Your task to perform on an android device: Clear the shopping cart on newegg.com. Search for razer blackwidow on newegg.com, select the first entry, add it to the cart, then select checkout. Image 0: 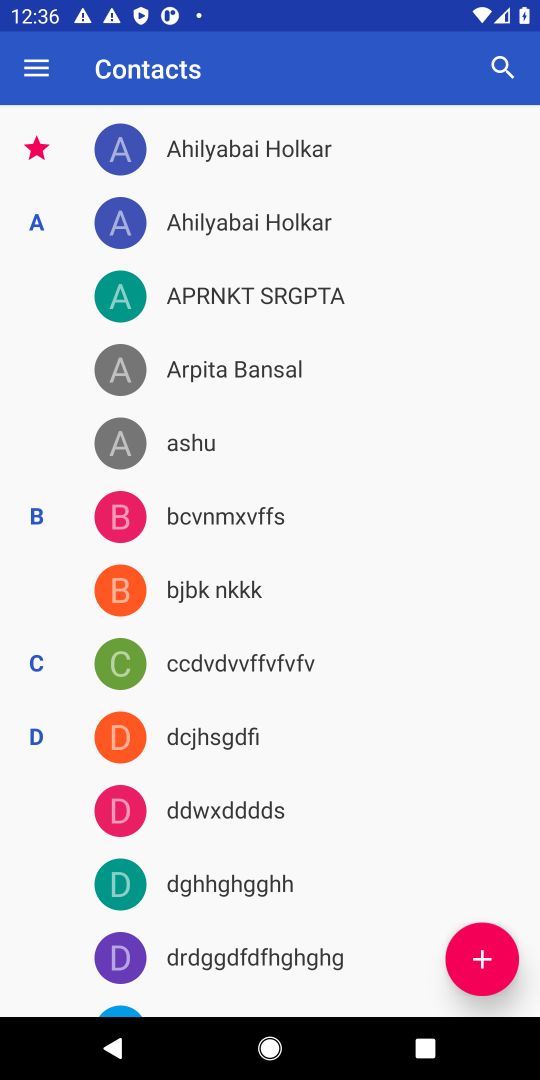
Step 0: press home button
Your task to perform on an android device: Clear the shopping cart on newegg.com. Search for razer blackwidow on newegg.com, select the first entry, add it to the cart, then select checkout. Image 1: 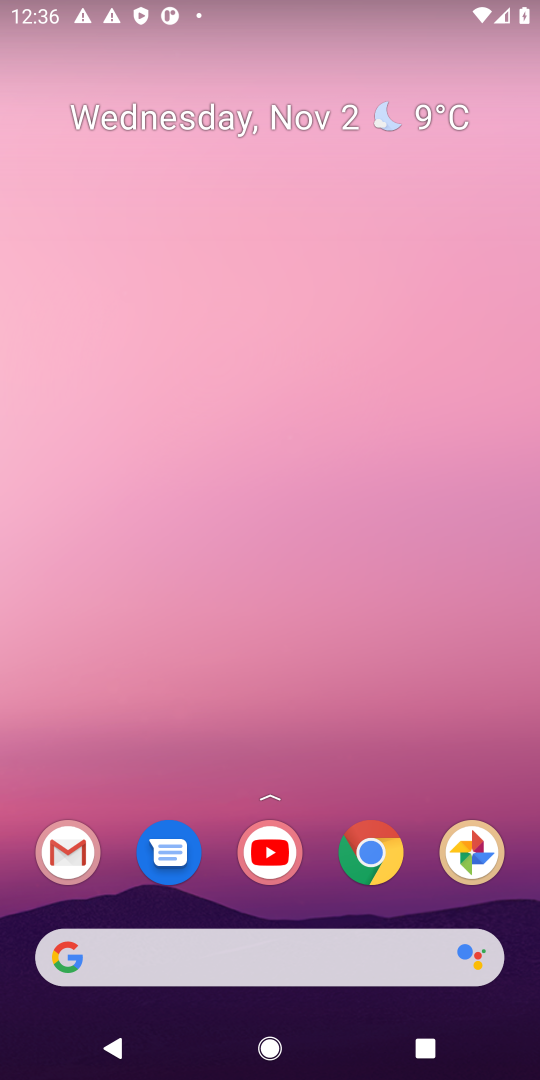
Step 1: click (351, 844)
Your task to perform on an android device: Clear the shopping cart on newegg.com. Search for razer blackwidow on newegg.com, select the first entry, add it to the cart, then select checkout. Image 2: 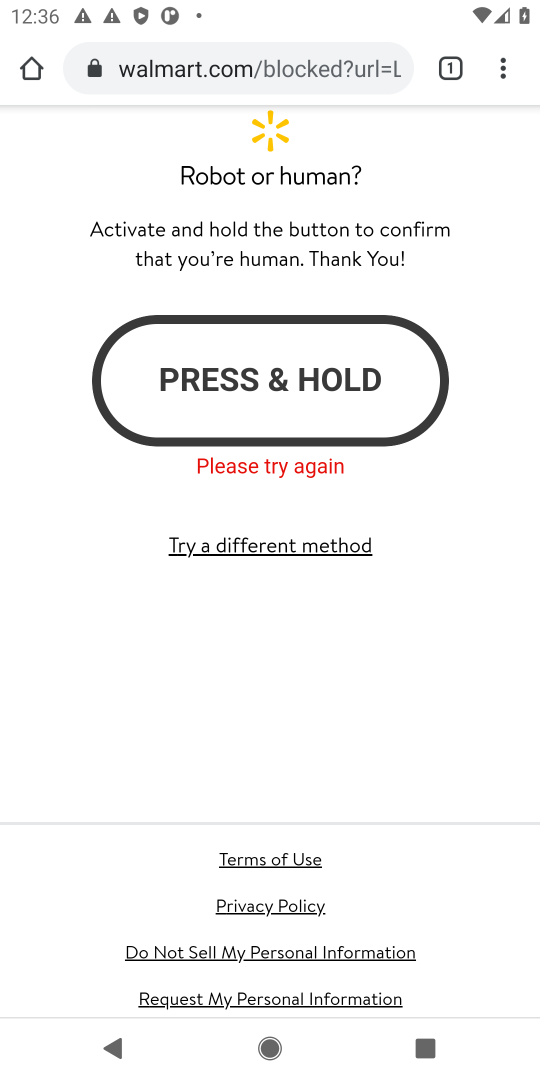
Step 2: click (347, 69)
Your task to perform on an android device: Clear the shopping cart on newegg.com. Search for razer blackwidow on newegg.com, select the first entry, add it to the cart, then select checkout. Image 3: 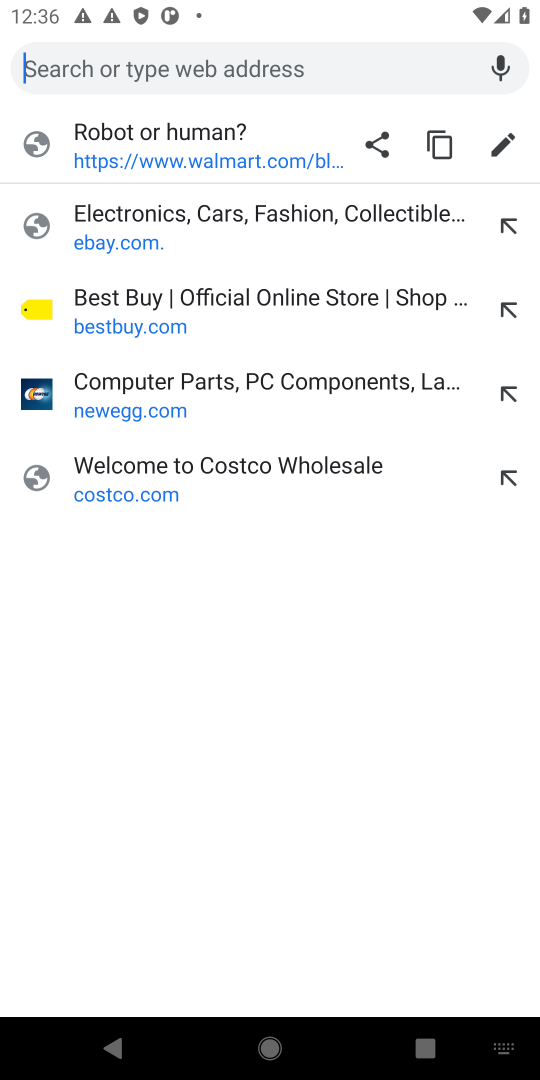
Step 3: type "newegg.com"
Your task to perform on an android device: Clear the shopping cart on newegg.com. Search for razer blackwidow on newegg.com, select the first entry, add it to the cart, then select checkout. Image 4: 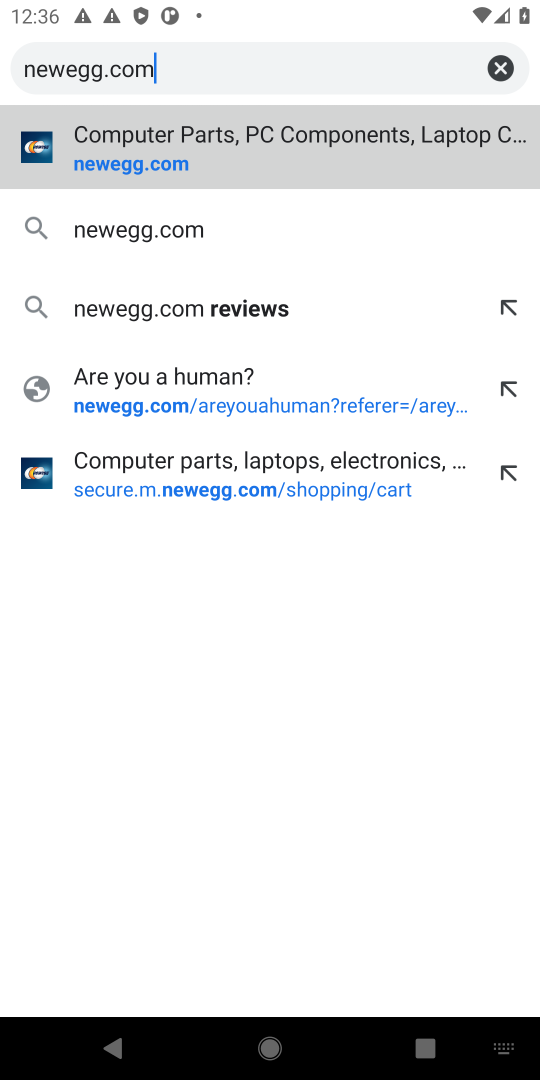
Step 4: click (317, 163)
Your task to perform on an android device: Clear the shopping cart on newegg.com. Search for razer blackwidow on newegg.com, select the first entry, add it to the cart, then select checkout. Image 5: 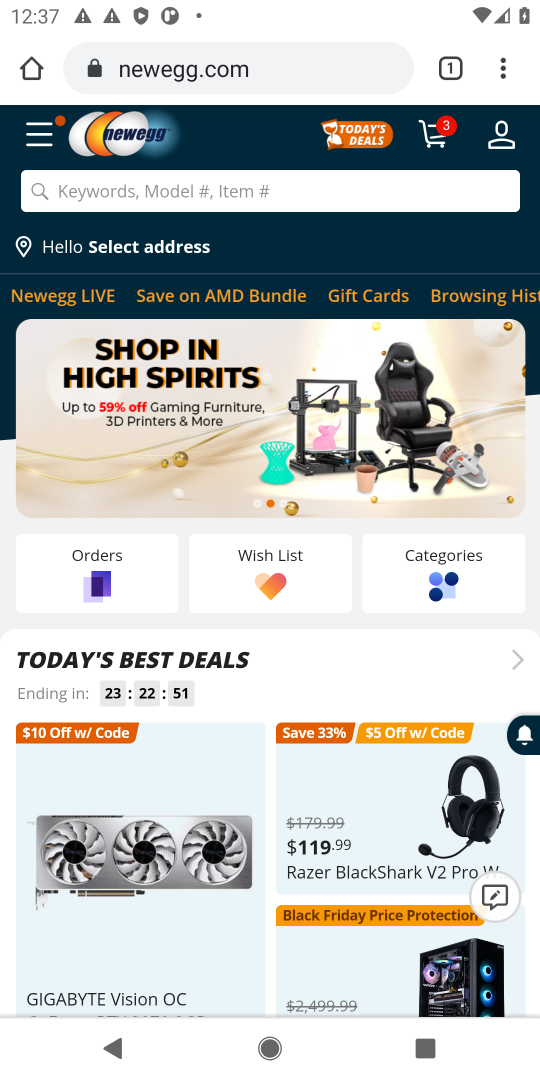
Step 5: click (251, 200)
Your task to perform on an android device: Clear the shopping cart on newegg.com. Search for razer blackwidow on newegg.com, select the first entry, add it to the cart, then select checkout. Image 6: 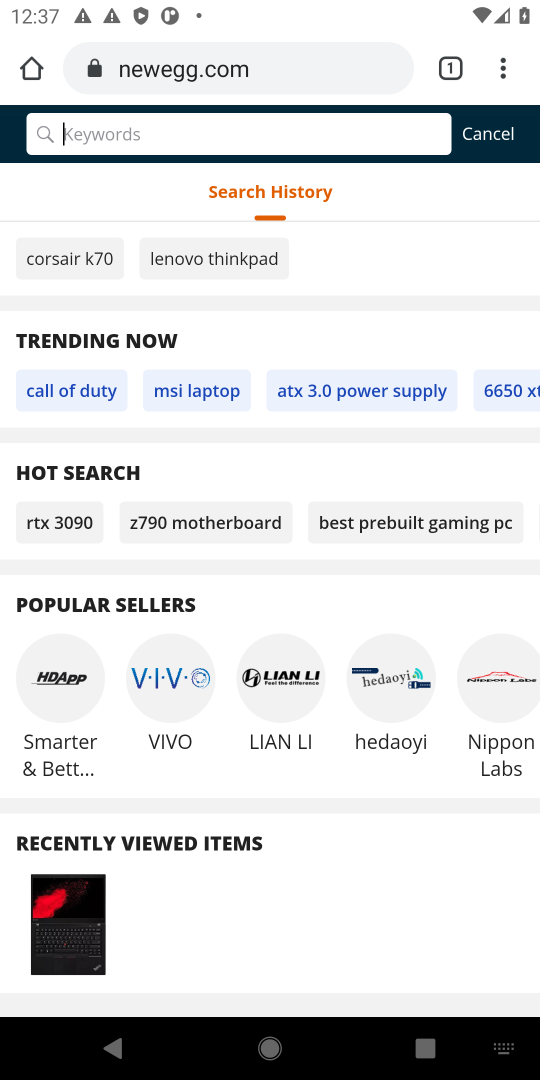
Step 6: type "razer blackwidow"
Your task to perform on an android device: Clear the shopping cart on newegg.com. Search for razer blackwidow on newegg.com, select the first entry, add it to the cart, then select checkout. Image 7: 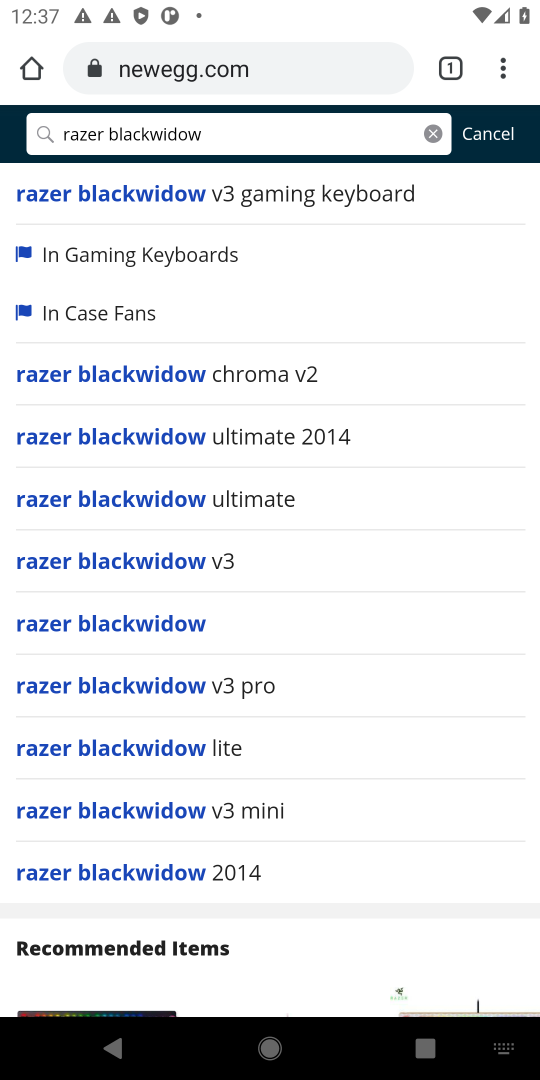
Step 7: click (190, 620)
Your task to perform on an android device: Clear the shopping cart on newegg.com. Search for razer blackwidow on newegg.com, select the first entry, add it to the cart, then select checkout. Image 8: 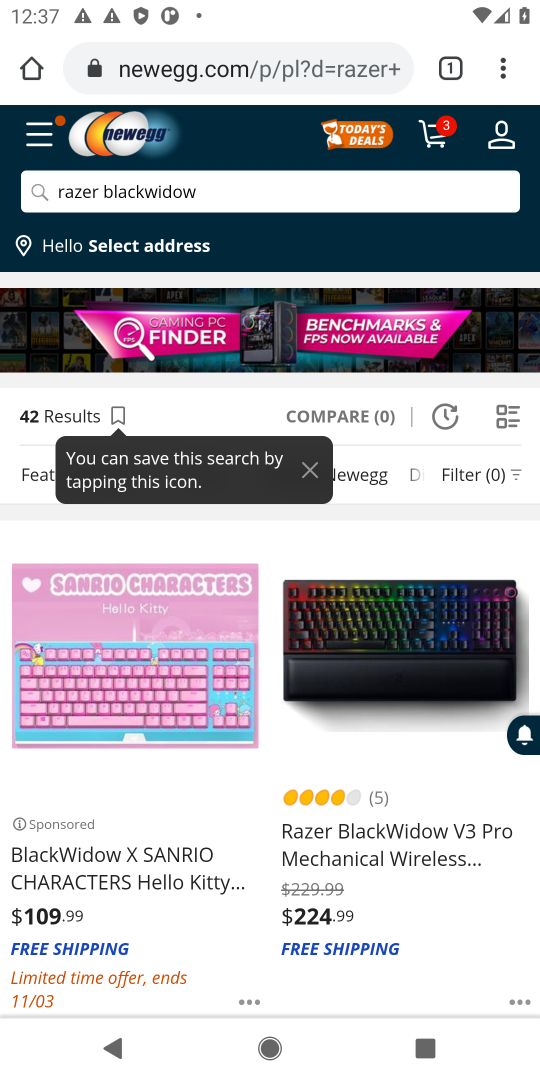
Step 8: click (313, 472)
Your task to perform on an android device: Clear the shopping cart on newegg.com. Search for razer blackwidow on newegg.com, select the first entry, add it to the cart, then select checkout. Image 9: 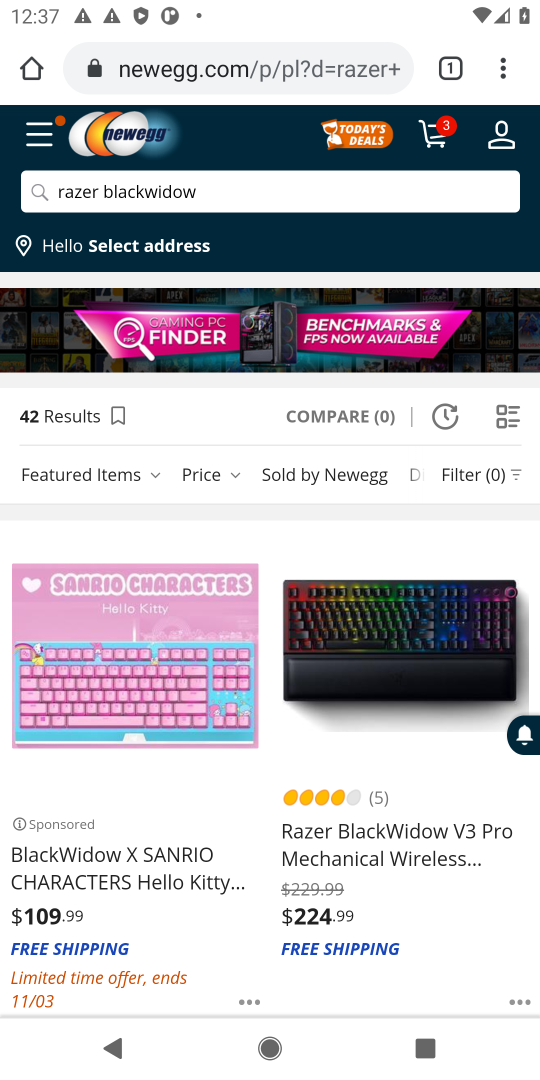
Step 9: click (205, 657)
Your task to perform on an android device: Clear the shopping cart on newegg.com. Search for razer blackwidow on newegg.com, select the first entry, add it to the cart, then select checkout. Image 10: 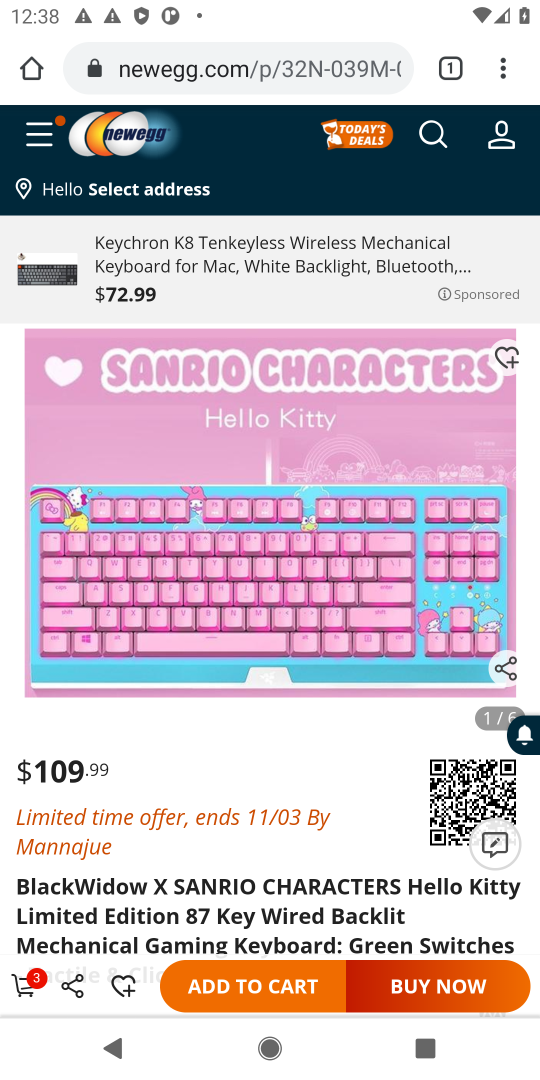
Step 10: task complete